Your task to perform on an android device: clear history in the chrome app Image 0: 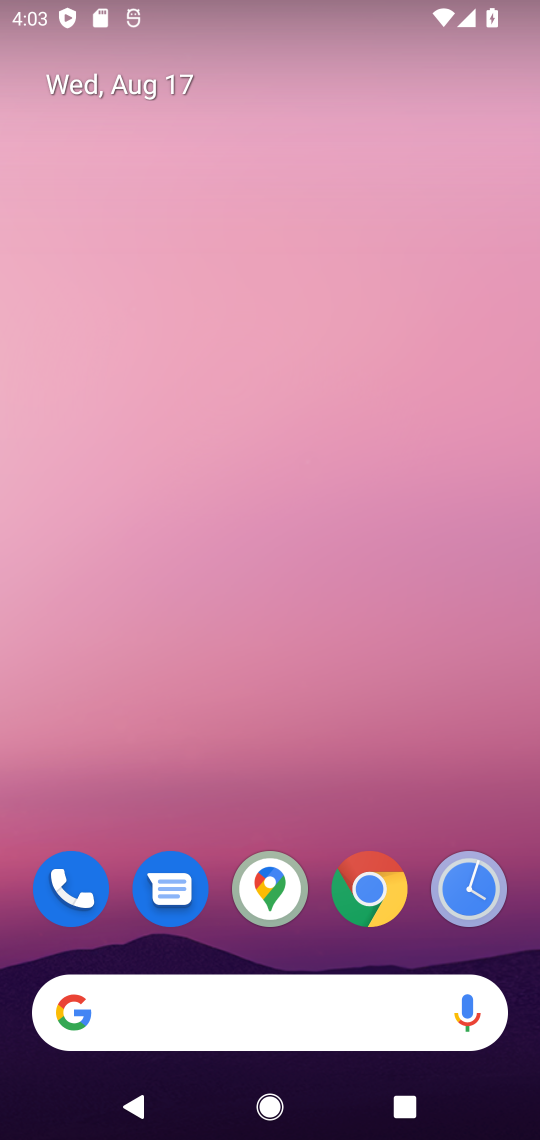
Step 0: click (367, 890)
Your task to perform on an android device: clear history in the chrome app Image 1: 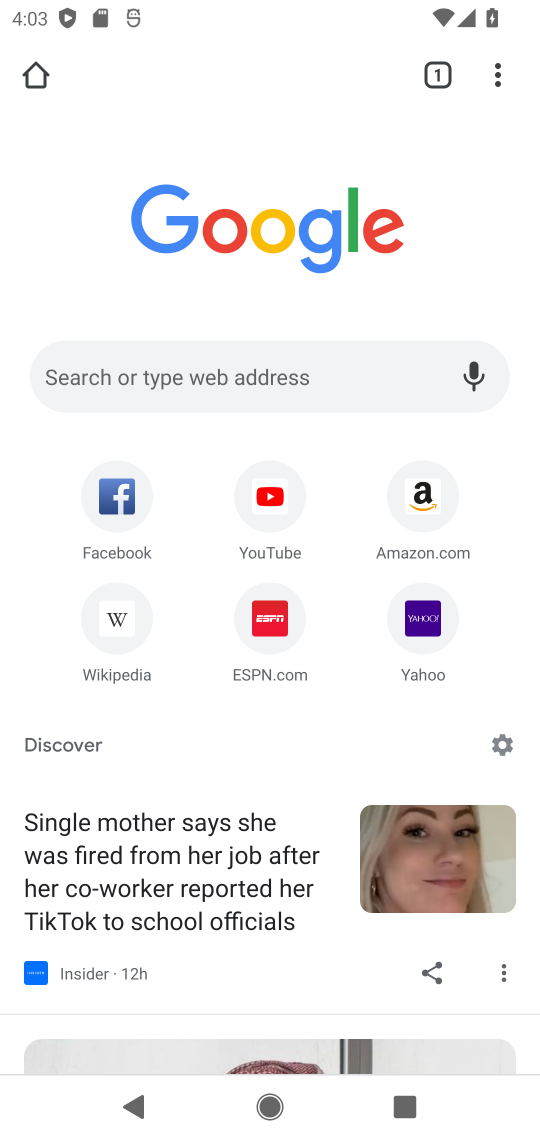
Step 1: click (502, 67)
Your task to perform on an android device: clear history in the chrome app Image 2: 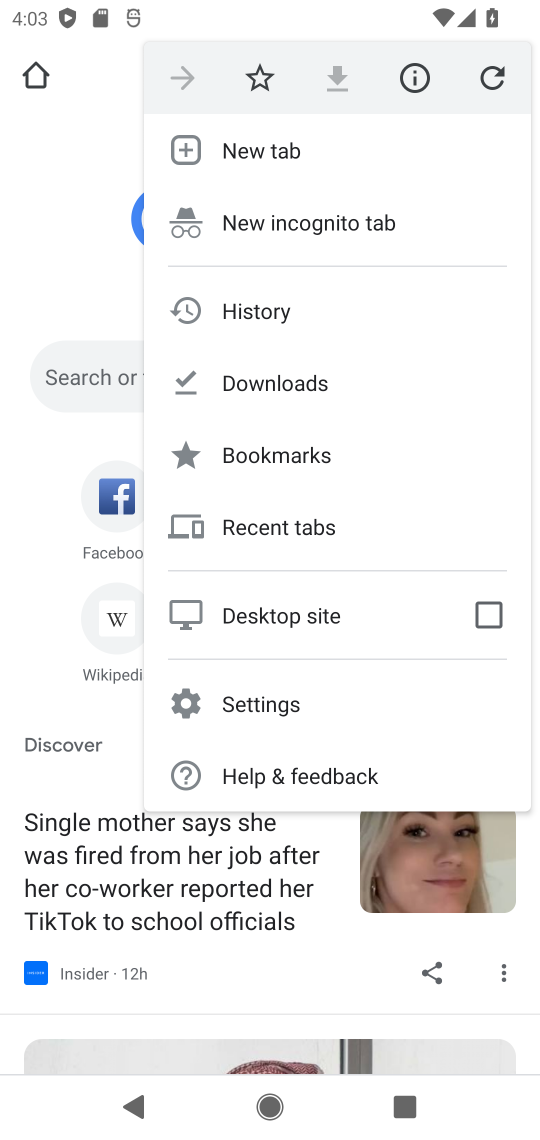
Step 2: click (268, 298)
Your task to perform on an android device: clear history in the chrome app Image 3: 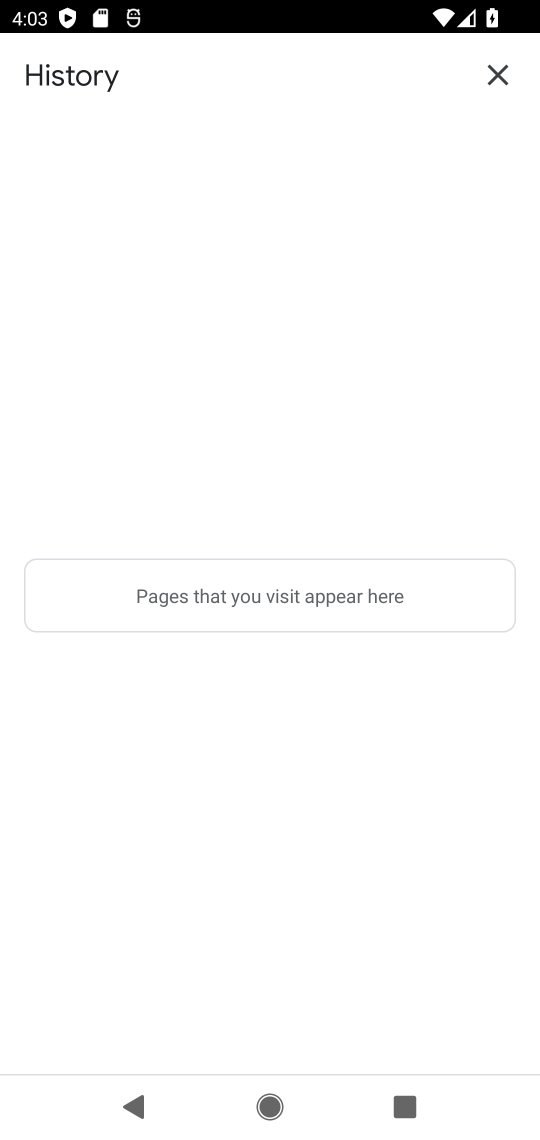
Step 3: task complete